Your task to perform on an android device: Open calendar and show me the fourth week of next month Image 0: 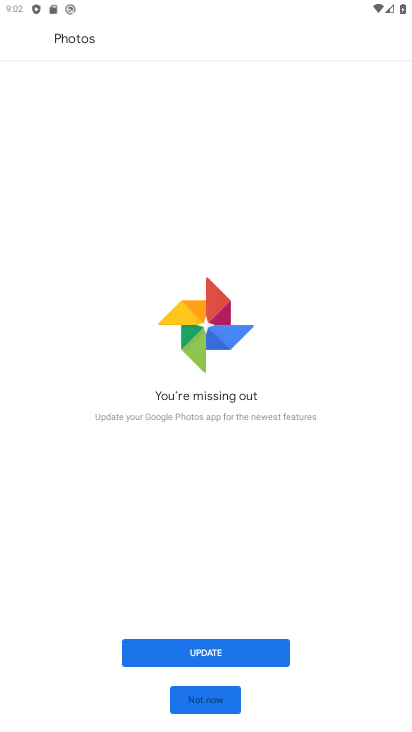
Step 0: press home button
Your task to perform on an android device: Open calendar and show me the fourth week of next month Image 1: 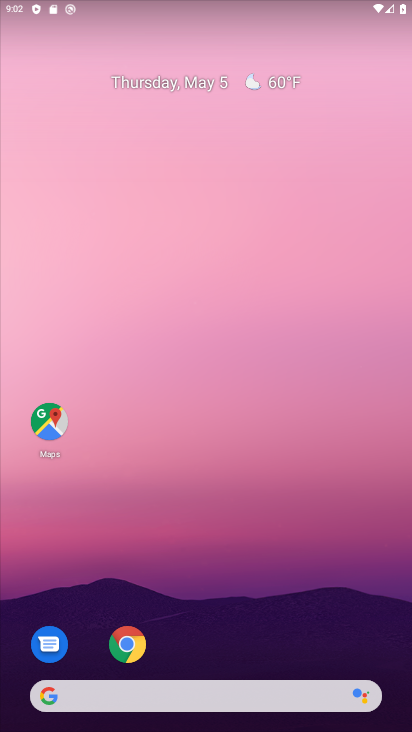
Step 1: drag from (213, 666) to (285, 75)
Your task to perform on an android device: Open calendar and show me the fourth week of next month Image 2: 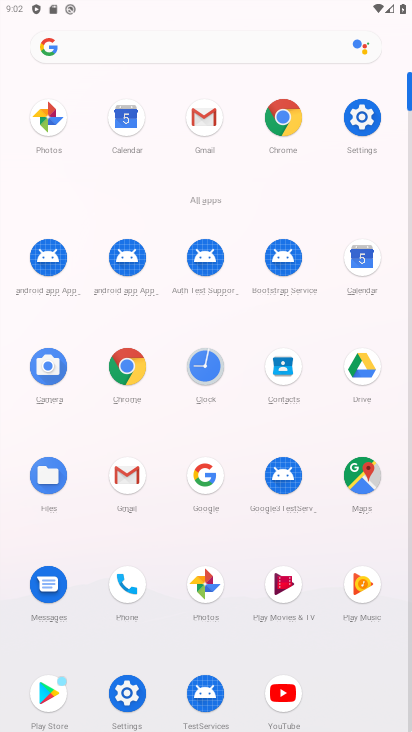
Step 2: click (360, 253)
Your task to perform on an android device: Open calendar and show me the fourth week of next month Image 3: 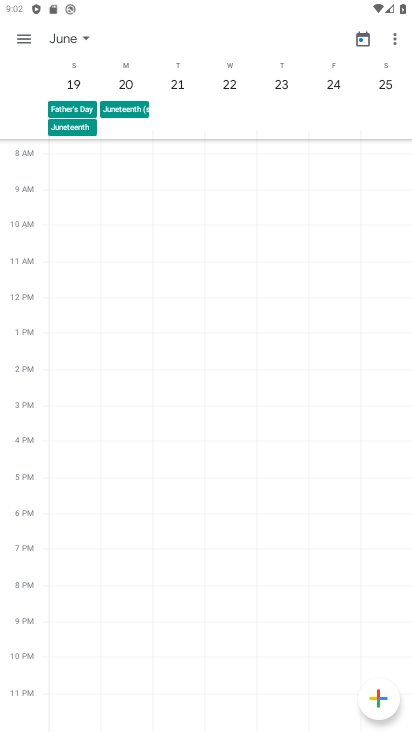
Step 3: task complete